Your task to perform on an android device: Search for "razer blade" on costco.com, select the first entry, and add it to the cart. Image 0: 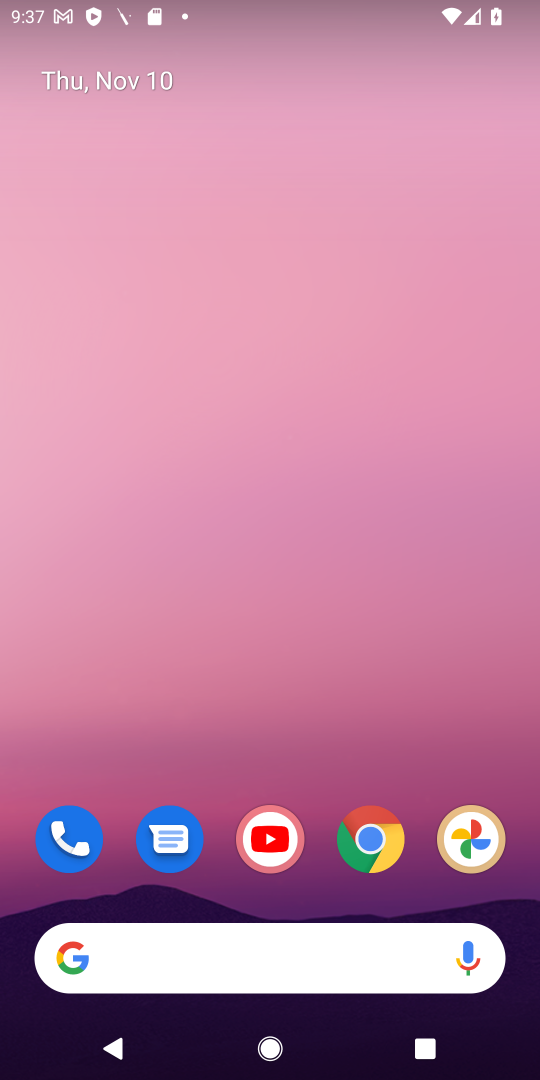
Step 0: click (386, 844)
Your task to perform on an android device: Search for "razer blade" on costco.com, select the first entry, and add it to the cart. Image 1: 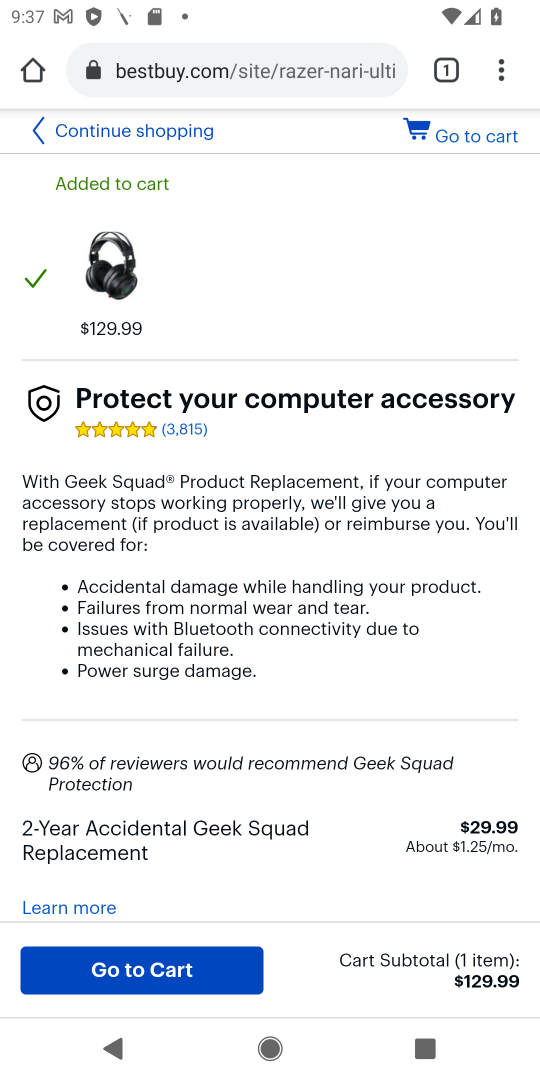
Step 1: click (244, 73)
Your task to perform on an android device: Search for "razer blade" on costco.com, select the first entry, and add it to the cart. Image 2: 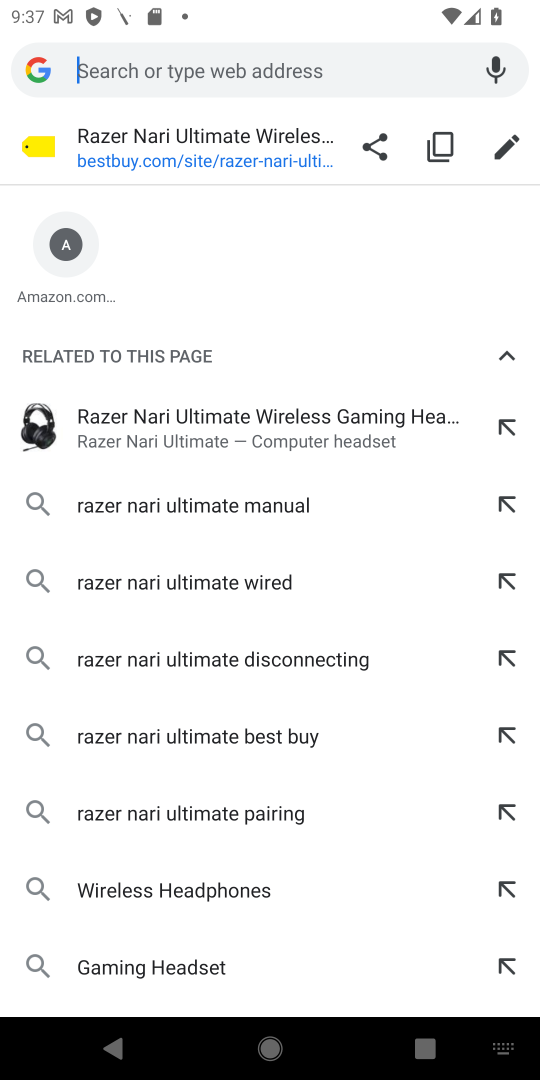
Step 2: type "costco.com"
Your task to perform on an android device: Search for "razer blade" on costco.com, select the first entry, and add it to the cart. Image 3: 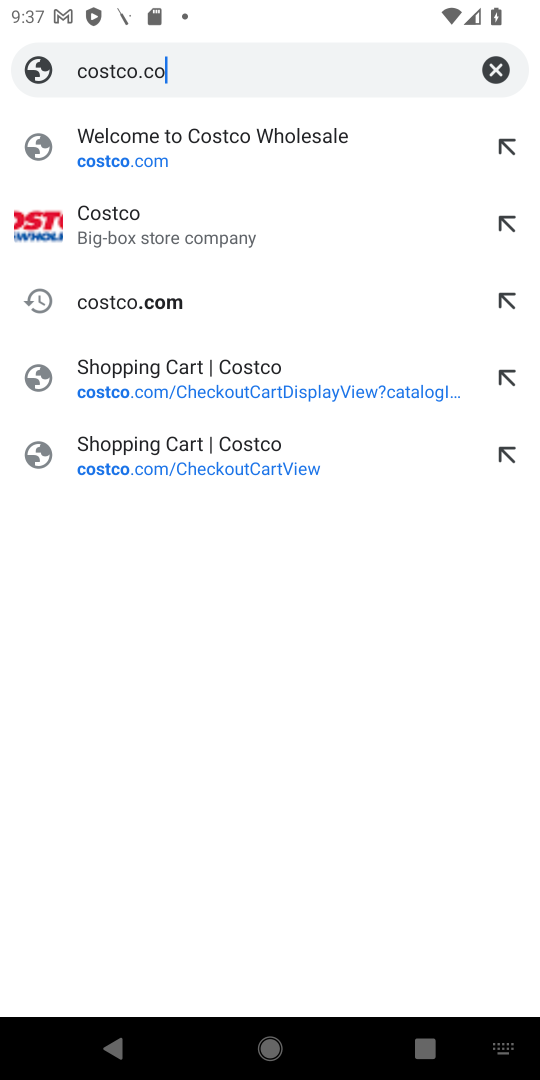
Step 3: press enter
Your task to perform on an android device: Search for "razer blade" on costco.com, select the first entry, and add it to the cart. Image 4: 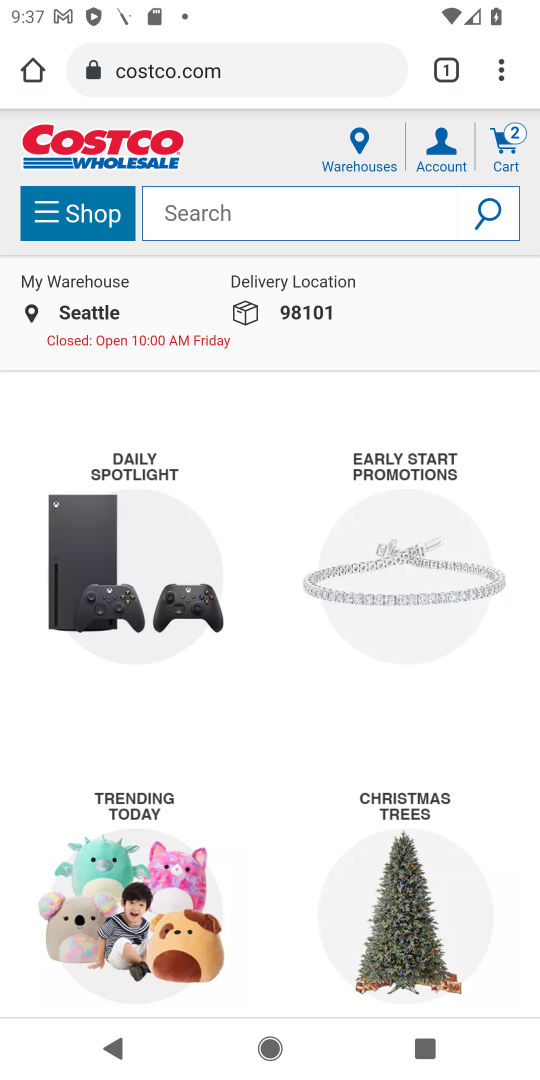
Step 4: click (430, 203)
Your task to perform on an android device: Search for "razer blade" on costco.com, select the first entry, and add it to the cart. Image 5: 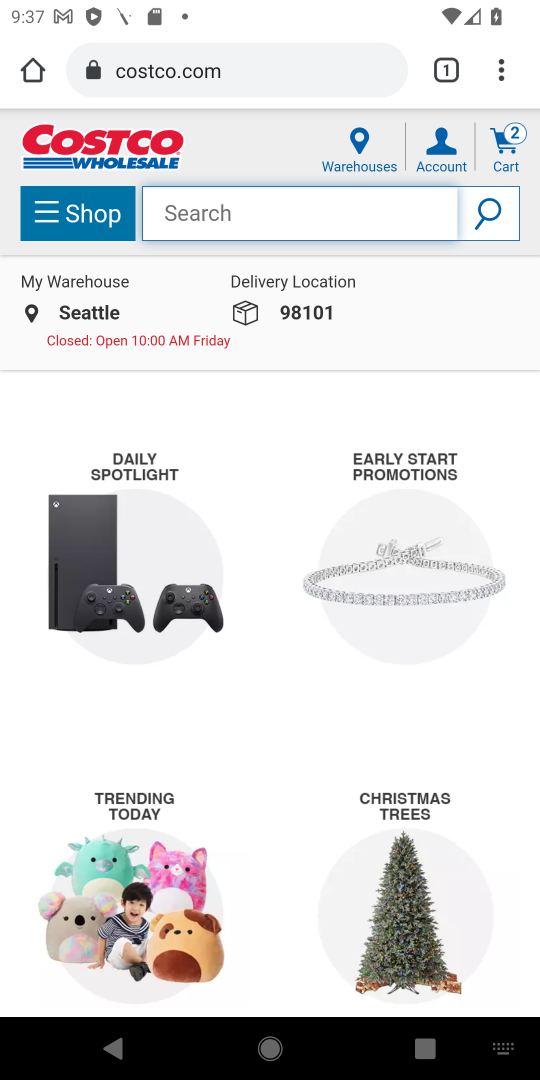
Step 5: type "razer blade"
Your task to perform on an android device: Search for "razer blade" on costco.com, select the first entry, and add it to the cart. Image 6: 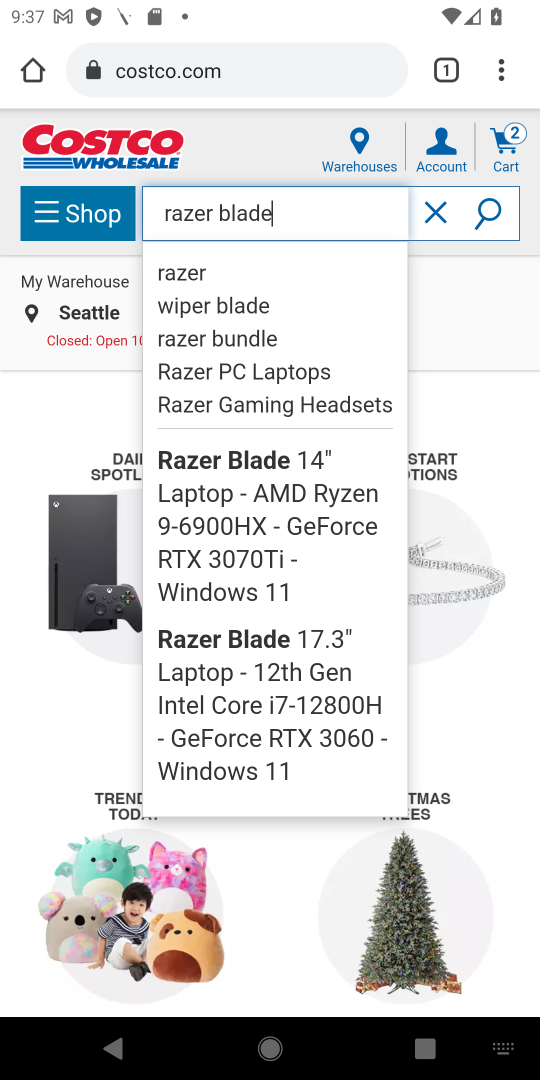
Step 6: click (509, 292)
Your task to perform on an android device: Search for "razer blade" on costco.com, select the first entry, and add it to the cart. Image 7: 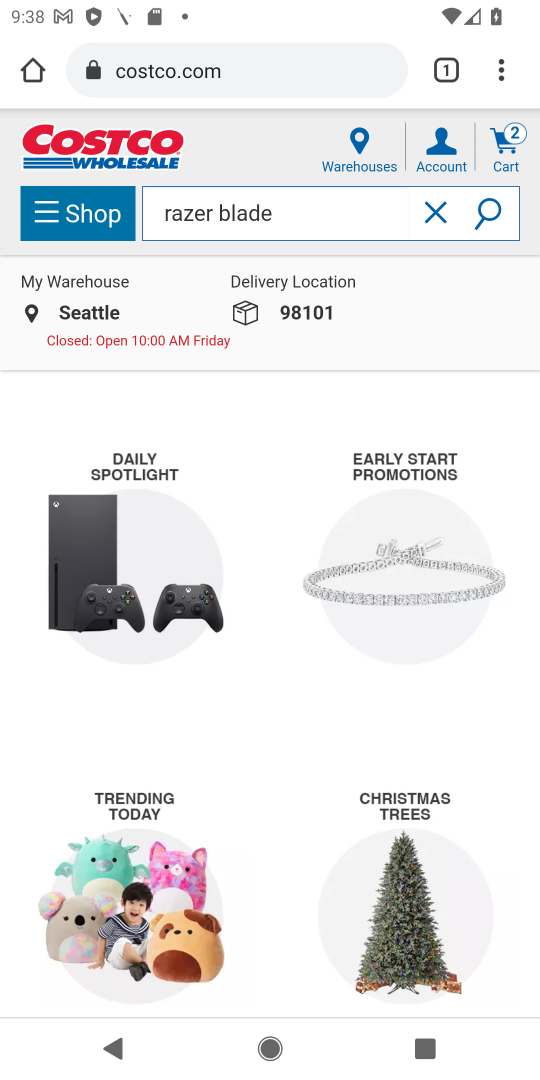
Step 7: click (431, 284)
Your task to perform on an android device: Search for "razer blade" on costco.com, select the first entry, and add it to the cart. Image 8: 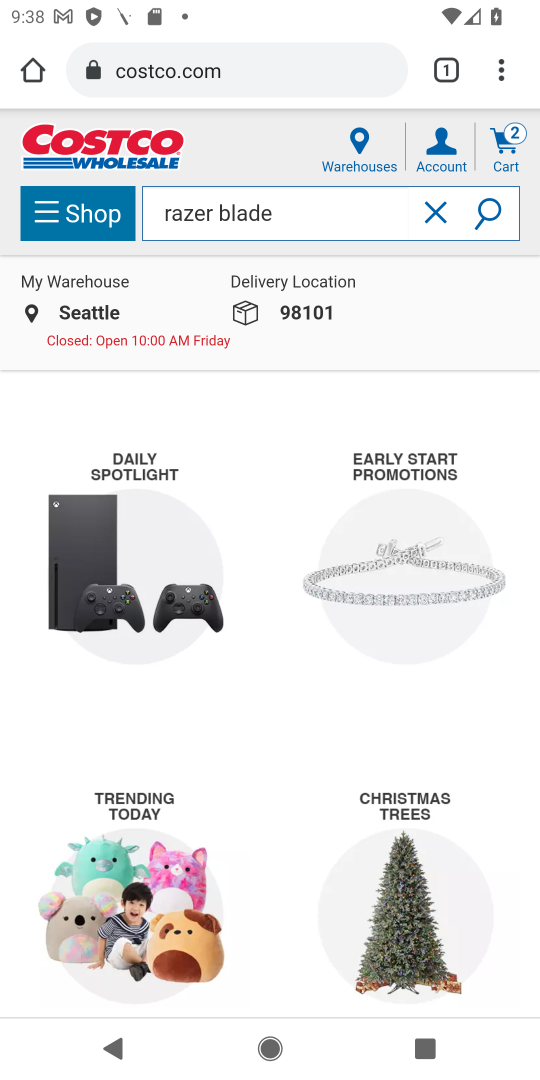
Step 8: task complete